Your task to perform on an android device: Open eBay Image 0: 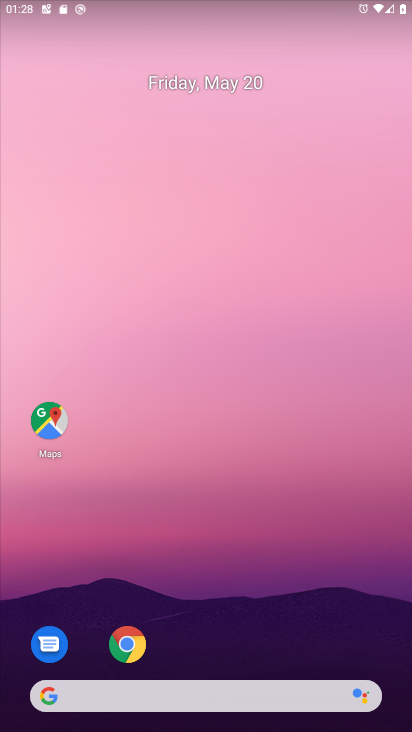
Step 0: drag from (198, 540) to (176, 336)
Your task to perform on an android device: Open eBay Image 1: 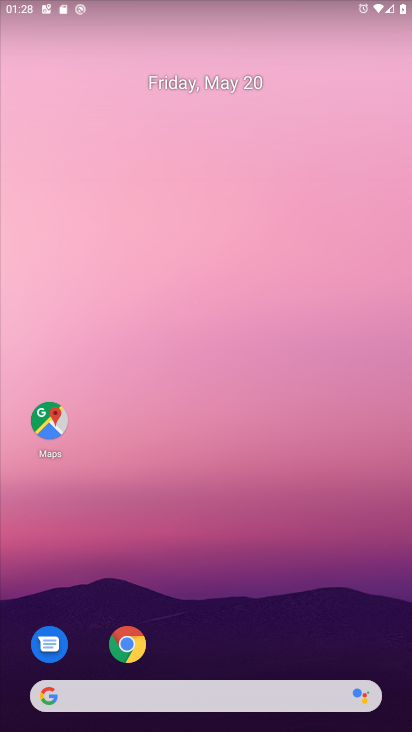
Step 1: drag from (223, 667) to (199, 379)
Your task to perform on an android device: Open eBay Image 2: 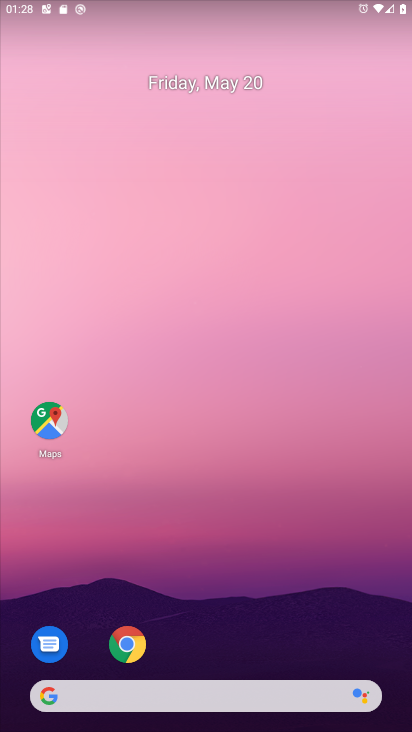
Step 2: drag from (209, 672) to (199, 326)
Your task to perform on an android device: Open eBay Image 3: 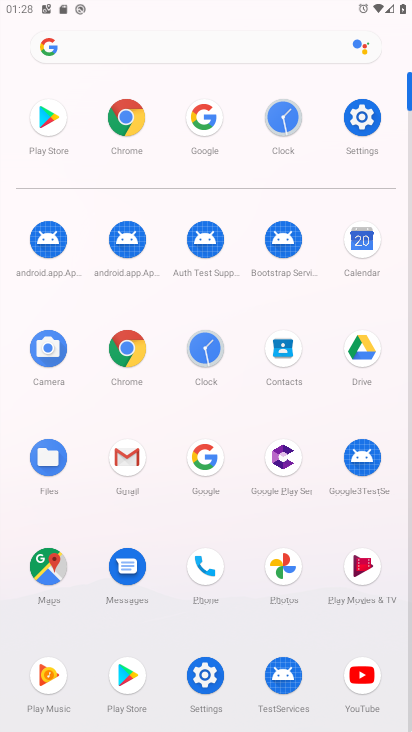
Step 3: click (204, 129)
Your task to perform on an android device: Open eBay Image 4: 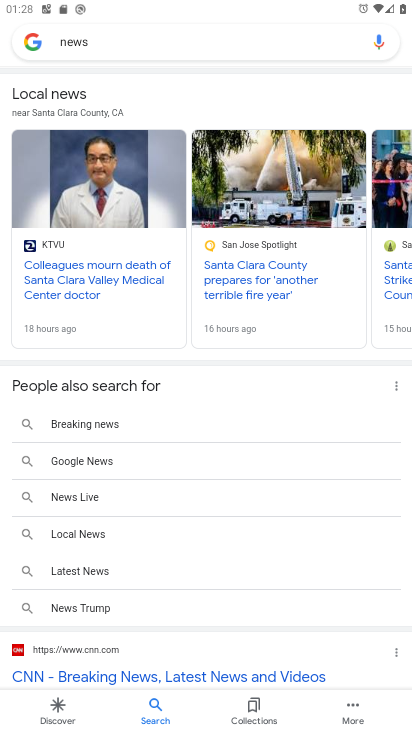
Step 4: click (149, 45)
Your task to perform on an android device: Open eBay Image 5: 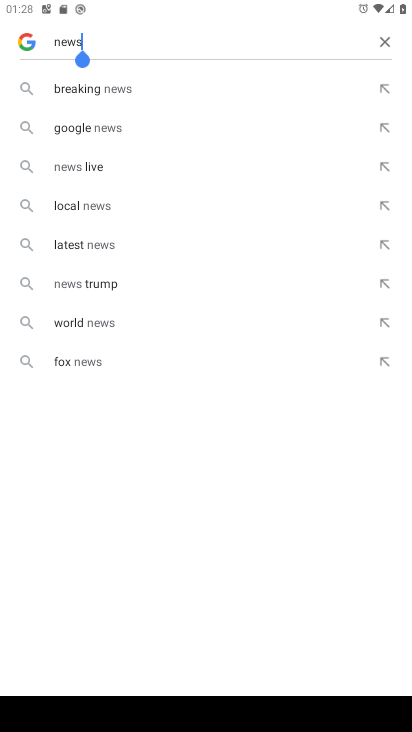
Step 5: click (382, 44)
Your task to perform on an android device: Open eBay Image 6: 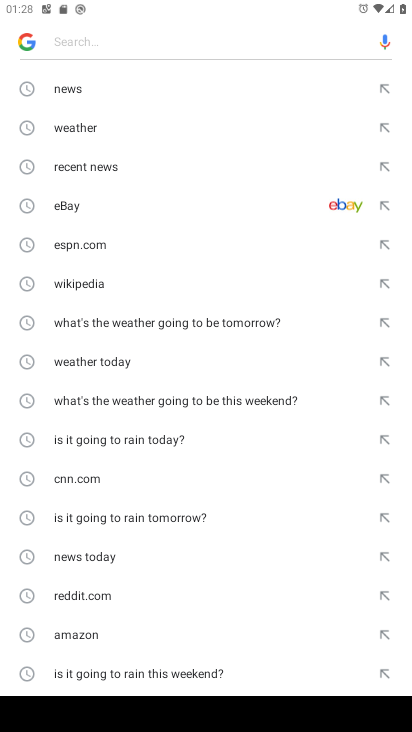
Step 6: click (286, 200)
Your task to perform on an android device: Open eBay Image 7: 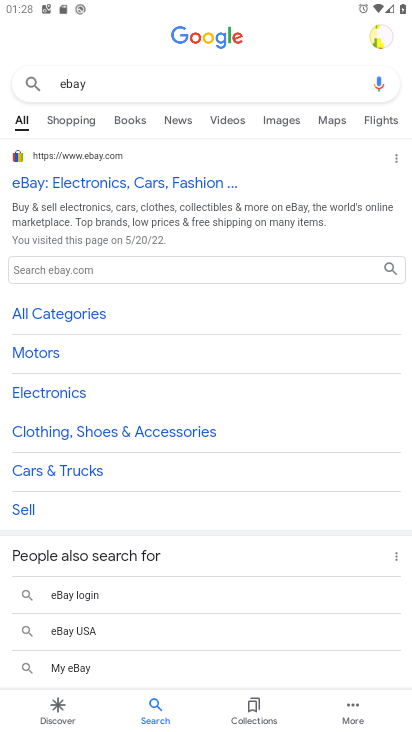
Step 7: click (184, 204)
Your task to perform on an android device: Open eBay Image 8: 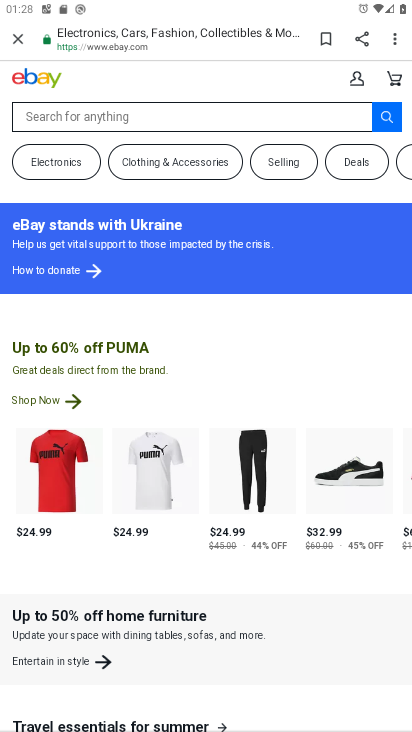
Step 8: task complete